Your task to perform on an android device: Add "usb-a to usb-b" to the cart on bestbuy, then select checkout. Image 0: 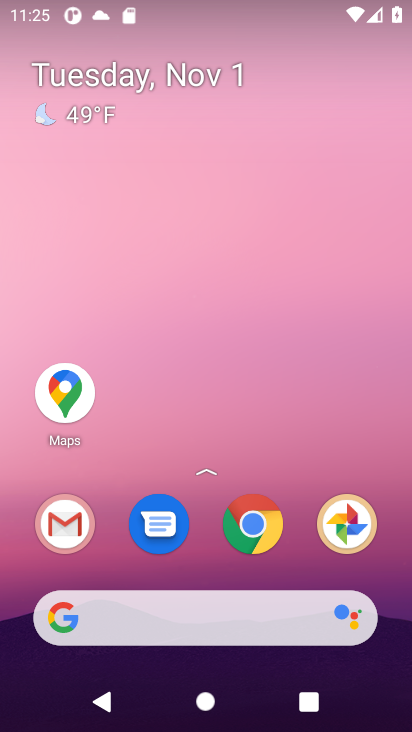
Step 0: click (97, 613)
Your task to perform on an android device: Add "usb-a to usb-b" to the cart on bestbuy, then select checkout. Image 1: 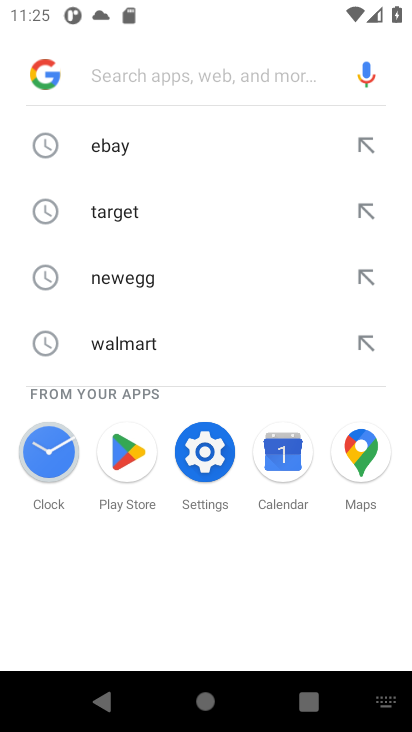
Step 1: type "bestbuy"
Your task to perform on an android device: Add "usb-a to usb-b" to the cart on bestbuy, then select checkout. Image 2: 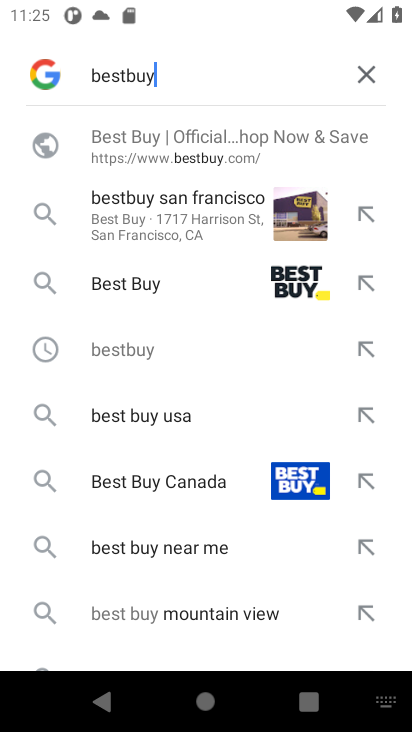
Step 2: press enter
Your task to perform on an android device: Add "usb-a to usb-b" to the cart on bestbuy, then select checkout. Image 3: 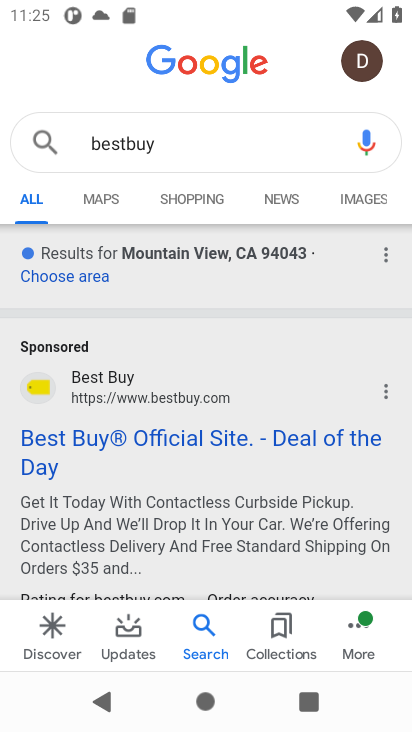
Step 3: click (201, 435)
Your task to perform on an android device: Add "usb-a to usb-b" to the cart on bestbuy, then select checkout. Image 4: 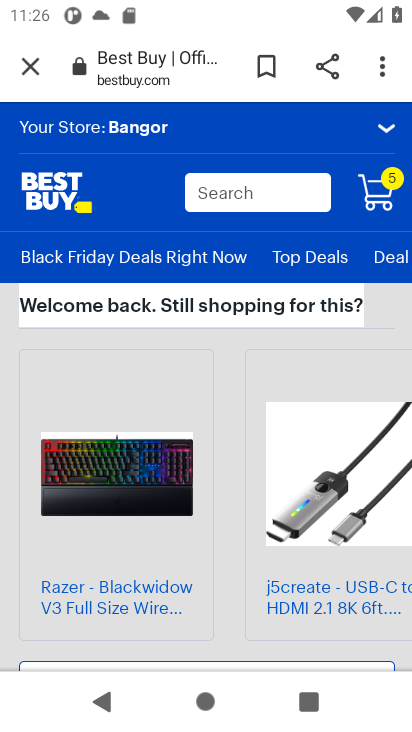
Step 4: click (227, 196)
Your task to perform on an android device: Add "usb-a to usb-b" to the cart on bestbuy, then select checkout. Image 5: 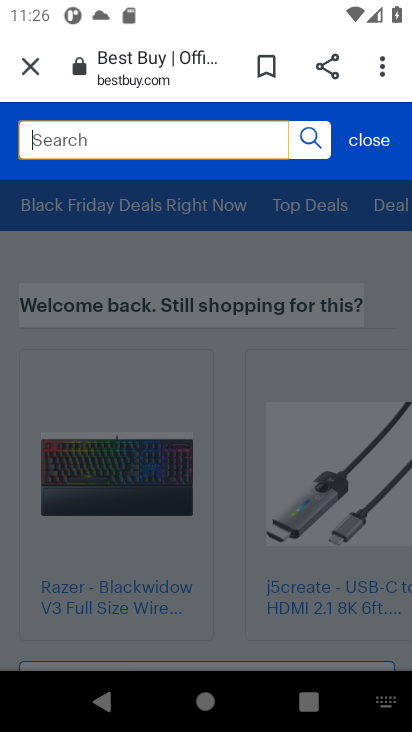
Step 5: type "usb-a to usb-b"
Your task to perform on an android device: Add "usb-a to usb-b" to the cart on bestbuy, then select checkout. Image 6: 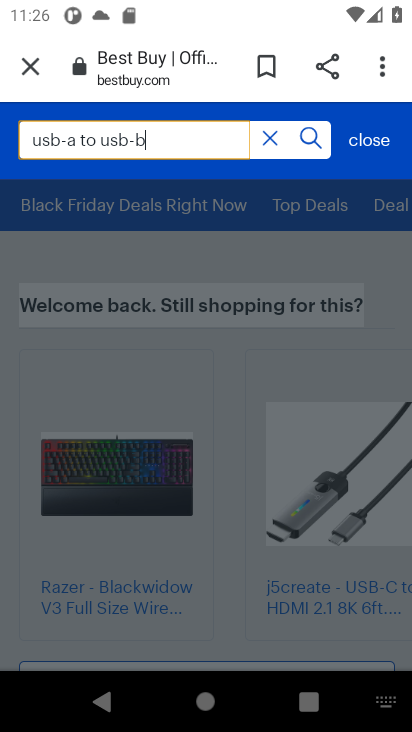
Step 6: press enter
Your task to perform on an android device: Add "usb-a to usb-b" to the cart on bestbuy, then select checkout. Image 7: 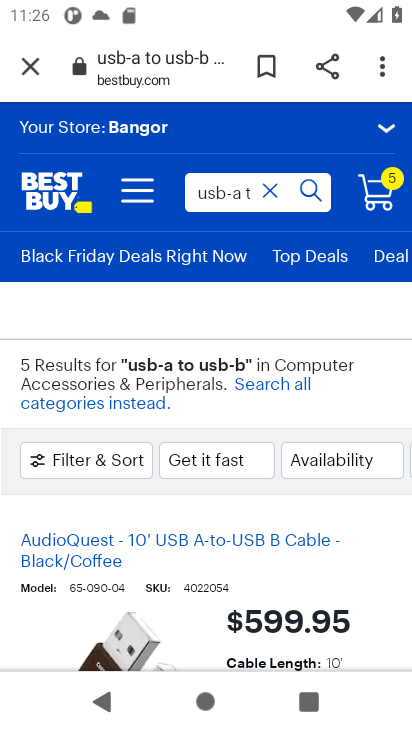
Step 7: drag from (227, 576) to (251, 410)
Your task to perform on an android device: Add "usb-a to usb-b" to the cart on bestbuy, then select checkout. Image 8: 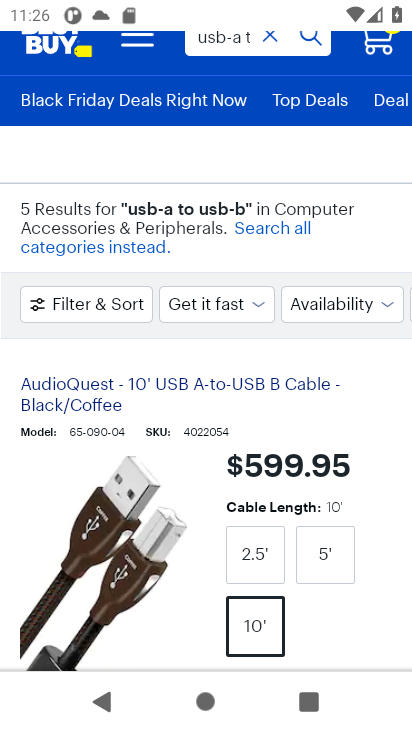
Step 8: drag from (177, 567) to (191, 437)
Your task to perform on an android device: Add "usb-a to usb-b" to the cart on bestbuy, then select checkout. Image 9: 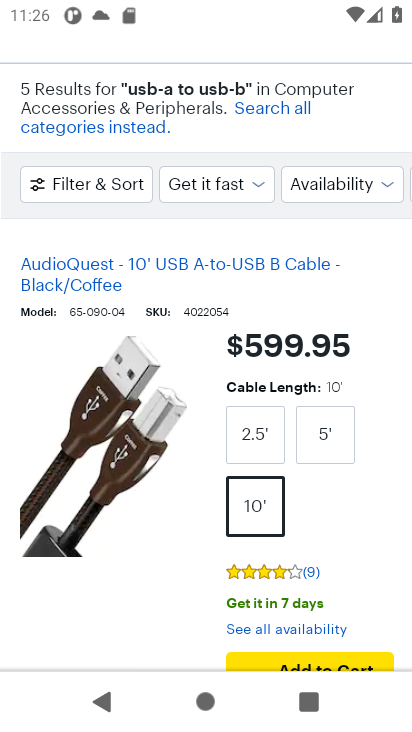
Step 9: drag from (143, 590) to (149, 366)
Your task to perform on an android device: Add "usb-a to usb-b" to the cart on bestbuy, then select checkout. Image 10: 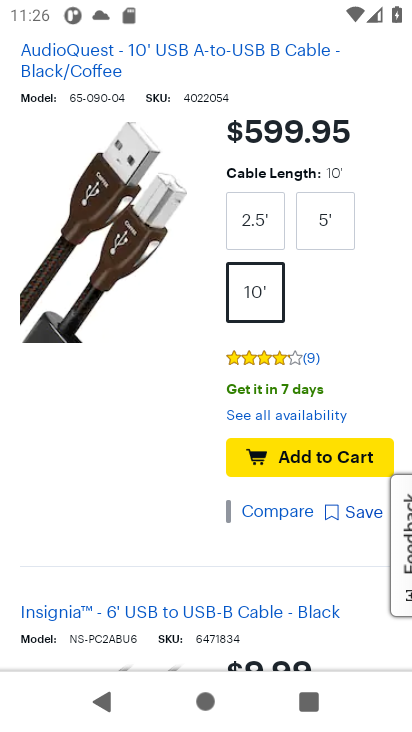
Step 10: click (318, 457)
Your task to perform on an android device: Add "usb-a to usb-b" to the cart on bestbuy, then select checkout. Image 11: 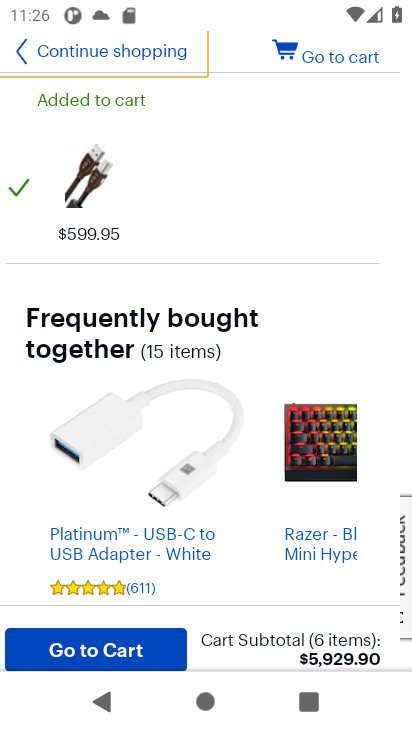
Step 11: click (79, 644)
Your task to perform on an android device: Add "usb-a to usb-b" to the cart on bestbuy, then select checkout. Image 12: 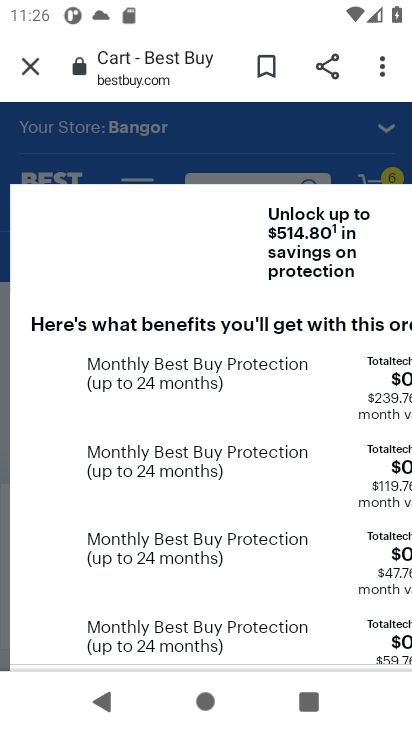
Step 12: click (203, 593)
Your task to perform on an android device: Add "usb-a to usb-b" to the cart on bestbuy, then select checkout. Image 13: 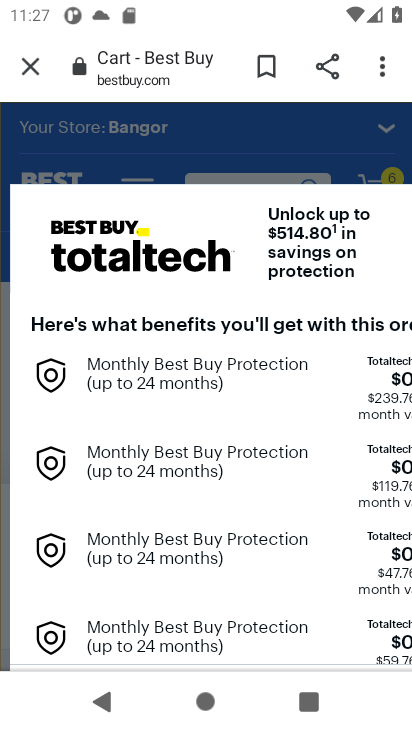
Step 13: drag from (240, 586) to (275, 144)
Your task to perform on an android device: Add "usb-a to usb-b" to the cart on bestbuy, then select checkout. Image 14: 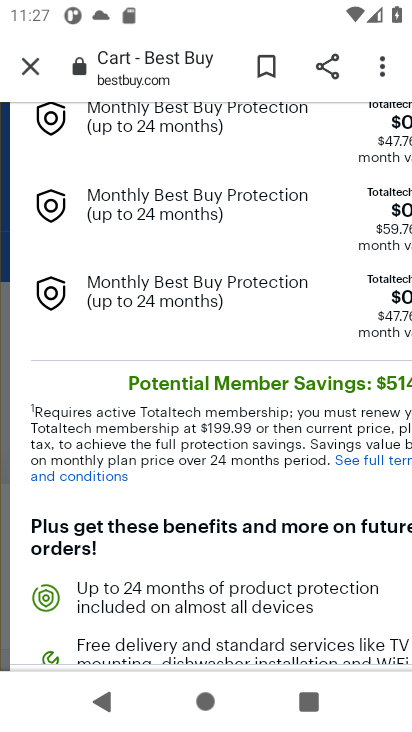
Step 14: drag from (209, 567) to (231, 192)
Your task to perform on an android device: Add "usb-a to usb-b" to the cart on bestbuy, then select checkout. Image 15: 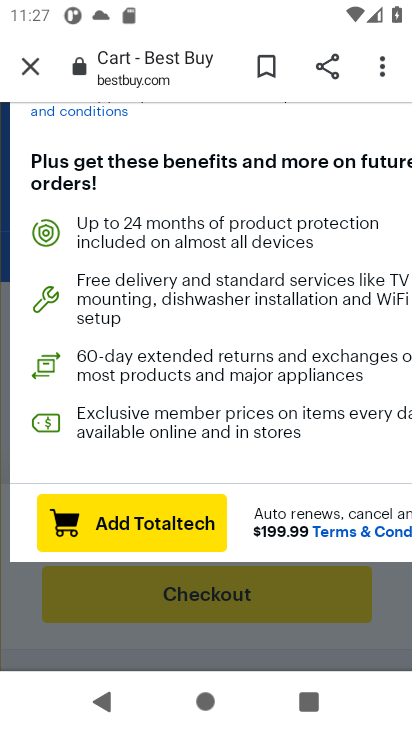
Step 15: click (259, 636)
Your task to perform on an android device: Add "usb-a to usb-b" to the cart on bestbuy, then select checkout. Image 16: 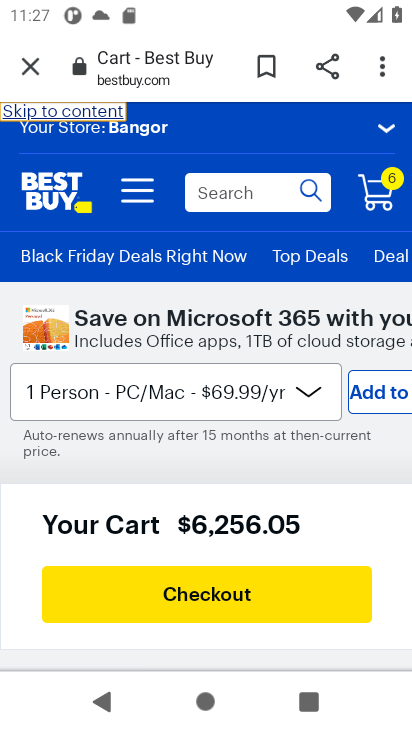
Step 16: click (221, 594)
Your task to perform on an android device: Add "usb-a to usb-b" to the cart on bestbuy, then select checkout. Image 17: 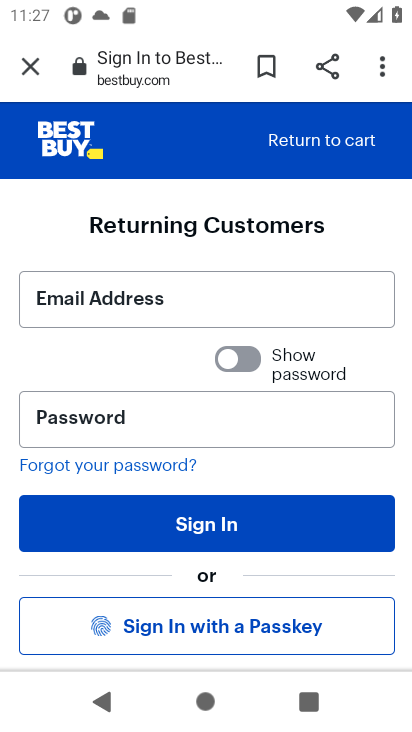
Step 17: task complete